Your task to perform on an android device: turn off translation in the chrome app Image 0: 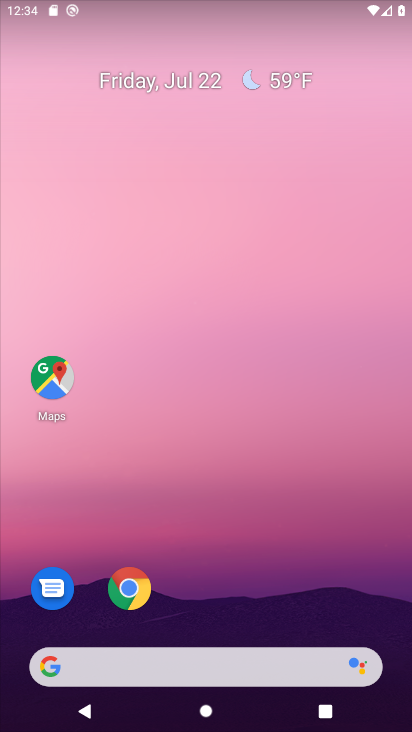
Step 0: drag from (175, 658) to (181, 136)
Your task to perform on an android device: turn off translation in the chrome app Image 1: 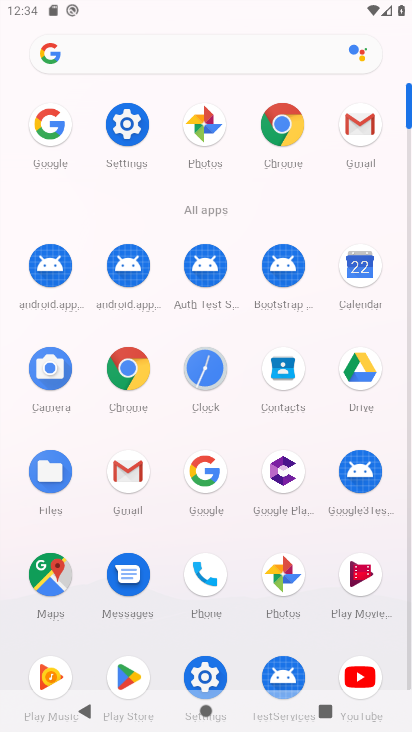
Step 1: click (288, 122)
Your task to perform on an android device: turn off translation in the chrome app Image 2: 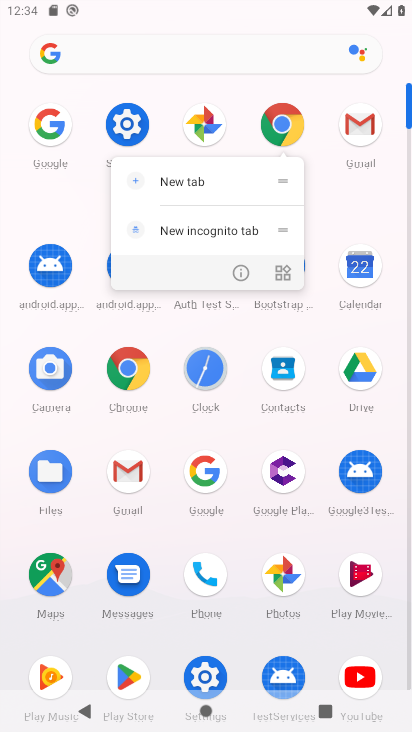
Step 2: click (288, 124)
Your task to perform on an android device: turn off translation in the chrome app Image 3: 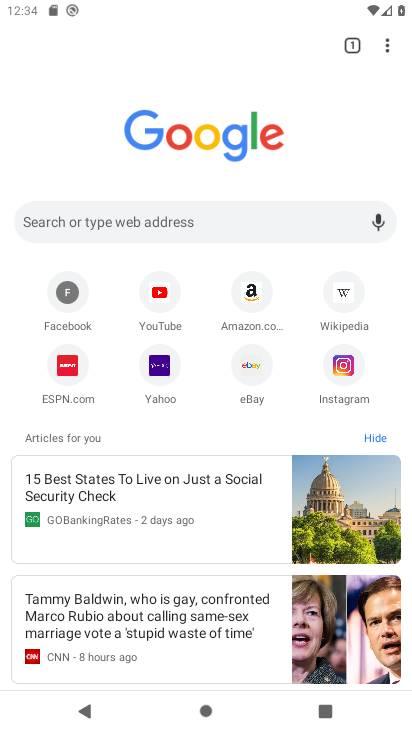
Step 3: click (383, 51)
Your task to perform on an android device: turn off translation in the chrome app Image 4: 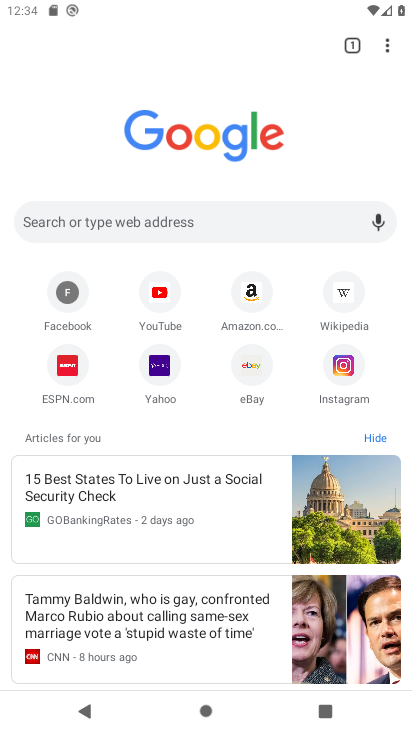
Step 4: click (380, 46)
Your task to perform on an android device: turn off translation in the chrome app Image 5: 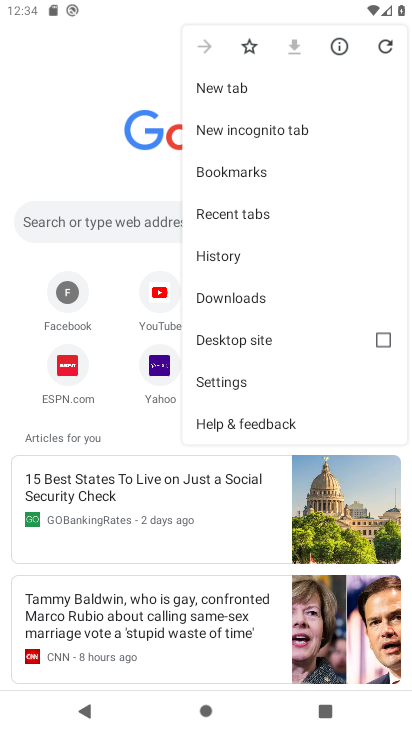
Step 5: click (222, 379)
Your task to perform on an android device: turn off translation in the chrome app Image 6: 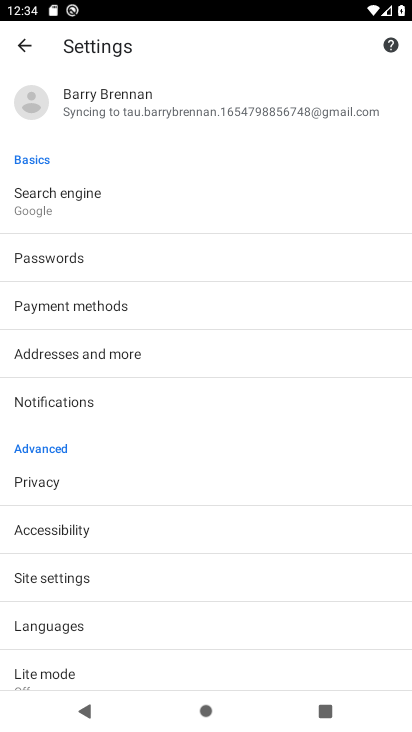
Step 6: click (61, 619)
Your task to perform on an android device: turn off translation in the chrome app Image 7: 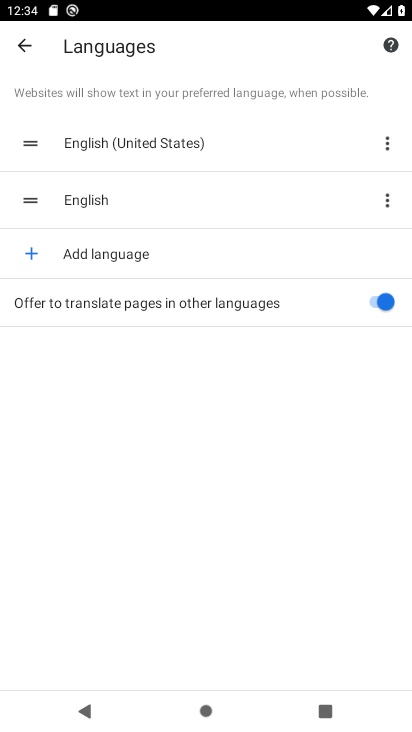
Step 7: click (372, 299)
Your task to perform on an android device: turn off translation in the chrome app Image 8: 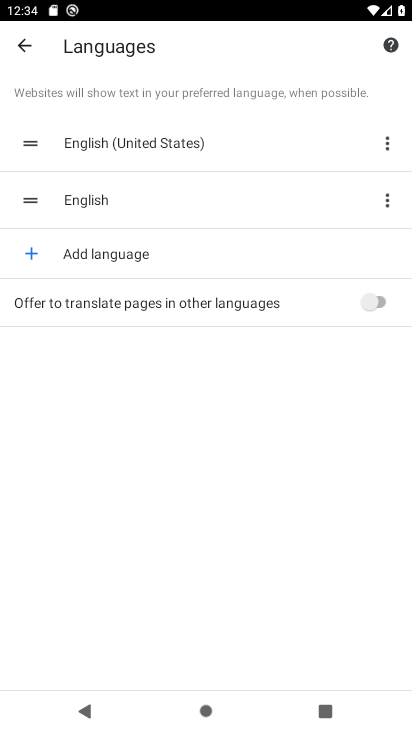
Step 8: task complete